Your task to perform on an android device: Open Google Chrome Image 0: 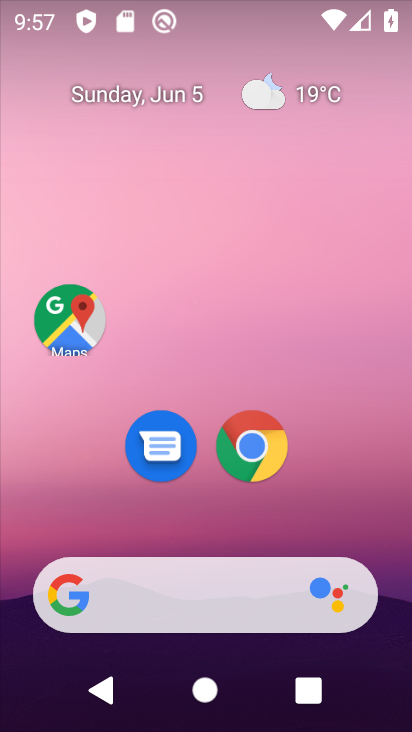
Step 0: click (241, 441)
Your task to perform on an android device: Open Google Chrome Image 1: 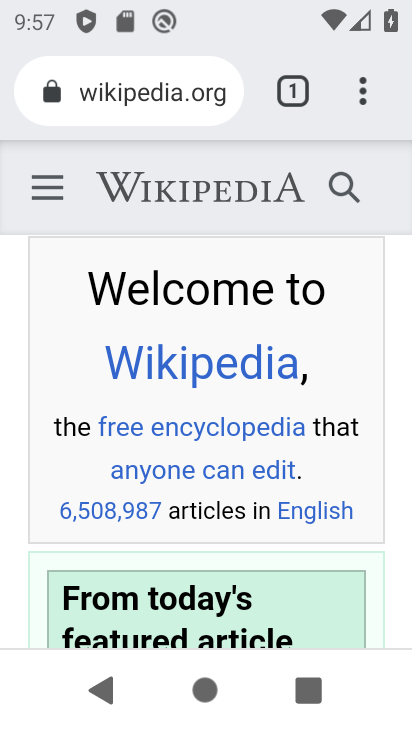
Step 1: task complete